Your task to perform on an android device: Go to location settings Image 0: 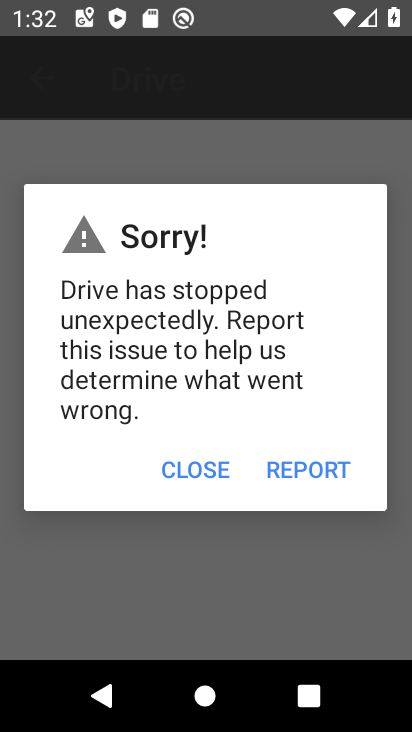
Step 0: press home button
Your task to perform on an android device: Go to location settings Image 1: 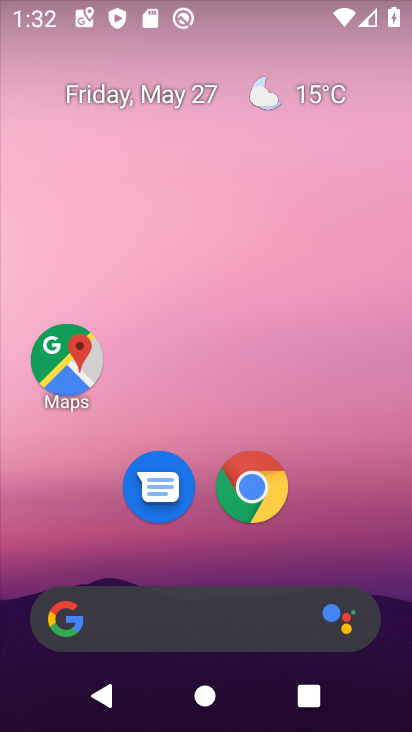
Step 1: drag from (218, 558) to (233, 1)
Your task to perform on an android device: Go to location settings Image 2: 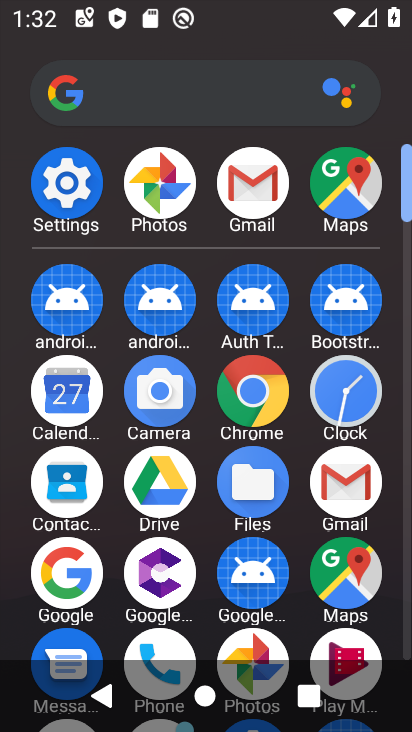
Step 2: click (90, 165)
Your task to perform on an android device: Go to location settings Image 3: 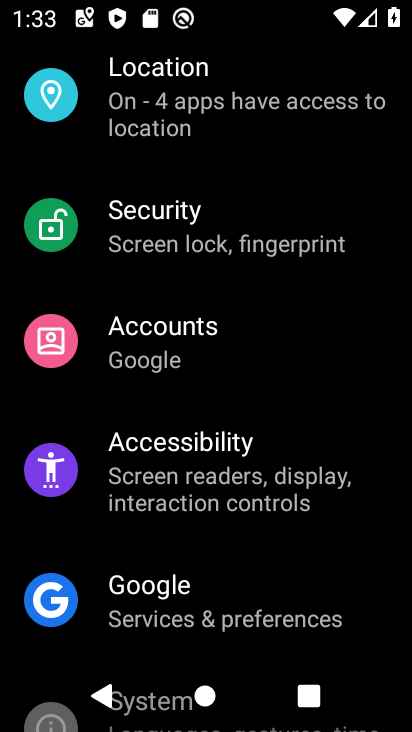
Step 3: click (192, 111)
Your task to perform on an android device: Go to location settings Image 4: 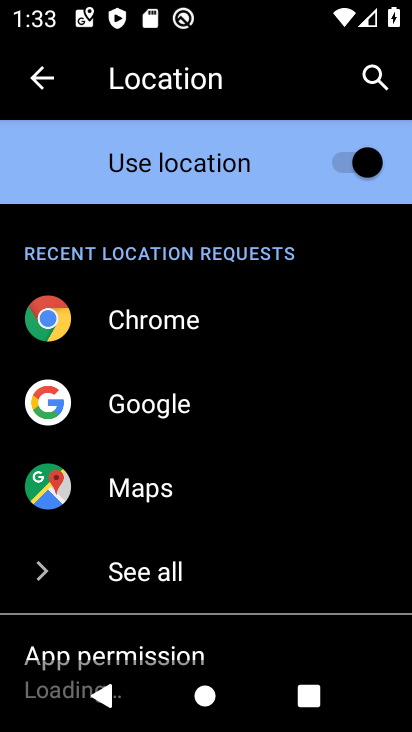
Step 4: task complete